Your task to perform on an android device: allow notifications from all sites in the chrome app Image 0: 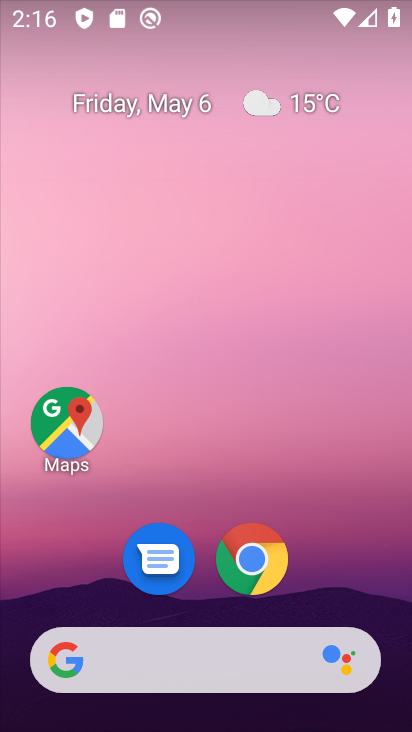
Step 0: click (270, 558)
Your task to perform on an android device: allow notifications from all sites in the chrome app Image 1: 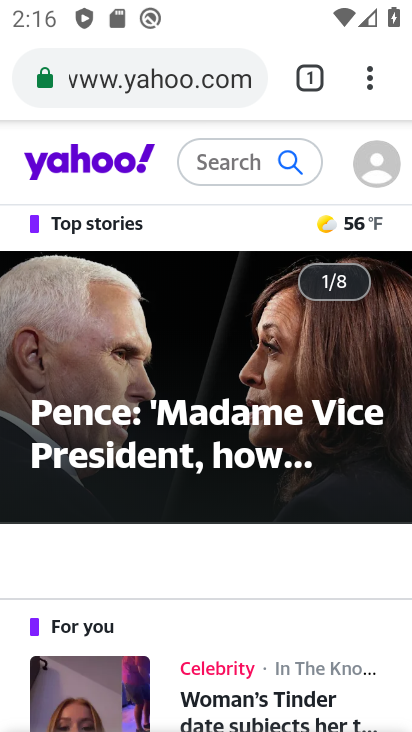
Step 1: click (370, 95)
Your task to perform on an android device: allow notifications from all sites in the chrome app Image 2: 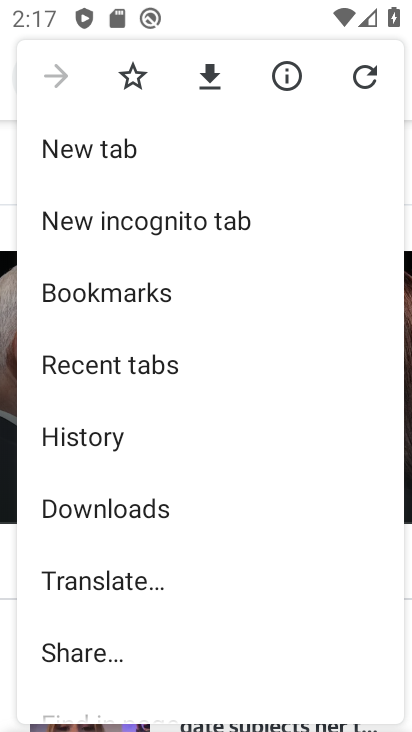
Step 2: drag from (189, 596) to (183, 246)
Your task to perform on an android device: allow notifications from all sites in the chrome app Image 3: 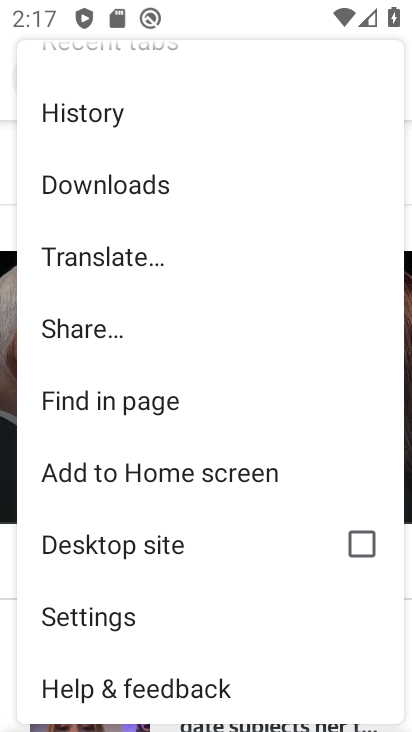
Step 3: click (147, 615)
Your task to perform on an android device: allow notifications from all sites in the chrome app Image 4: 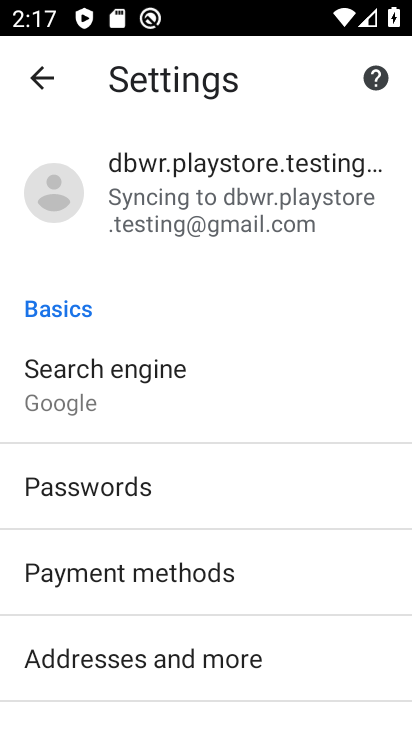
Step 4: drag from (182, 615) to (174, 251)
Your task to perform on an android device: allow notifications from all sites in the chrome app Image 5: 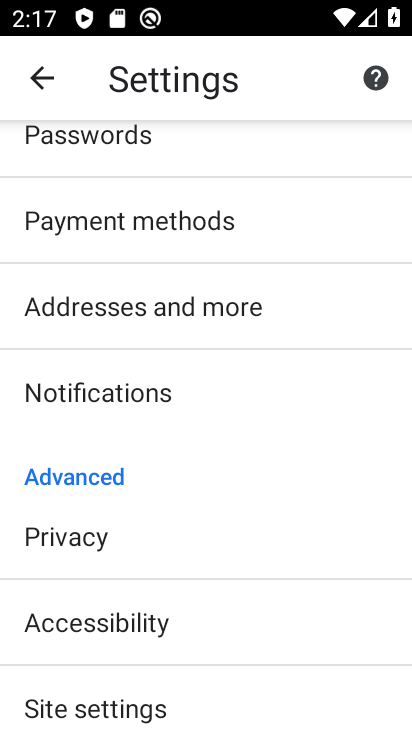
Step 5: drag from (208, 645) to (229, 358)
Your task to perform on an android device: allow notifications from all sites in the chrome app Image 6: 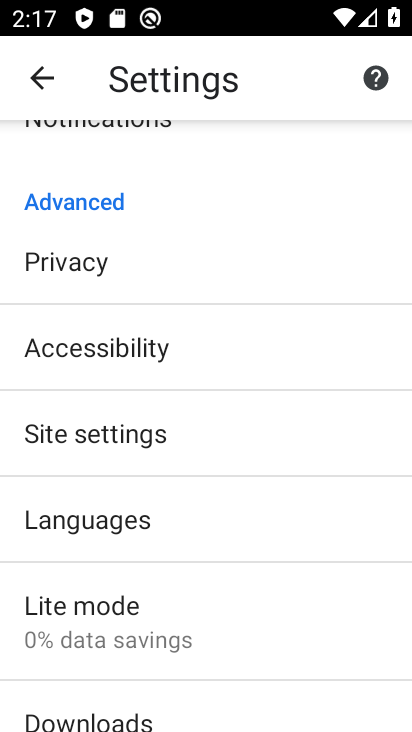
Step 6: click (230, 460)
Your task to perform on an android device: allow notifications from all sites in the chrome app Image 7: 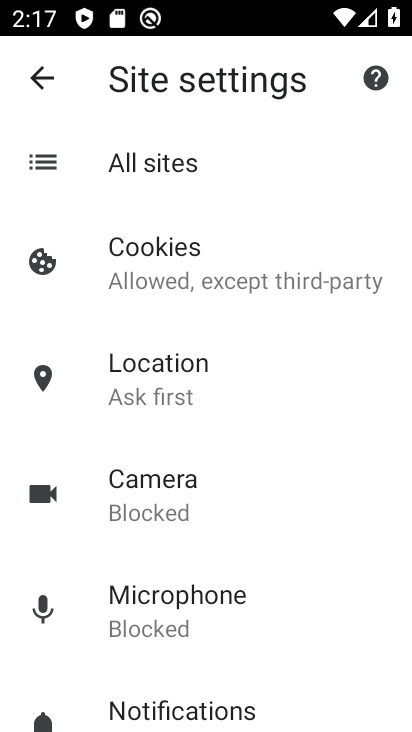
Step 7: task complete